Your task to perform on an android device: Turn off the flashlight Image 0: 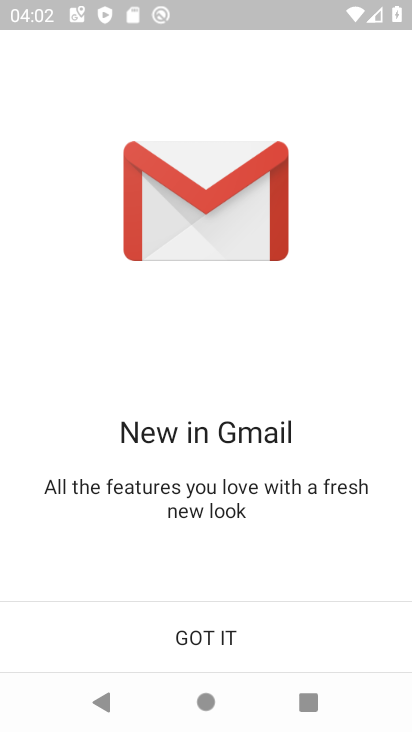
Step 0: press home button
Your task to perform on an android device: Turn off the flashlight Image 1: 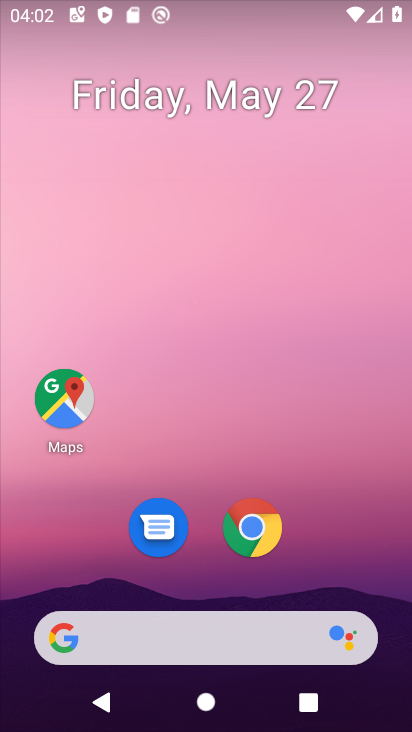
Step 1: task complete